Your task to perform on an android device: Open the calendar app, open the side menu, and click the "Day" option Image 0: 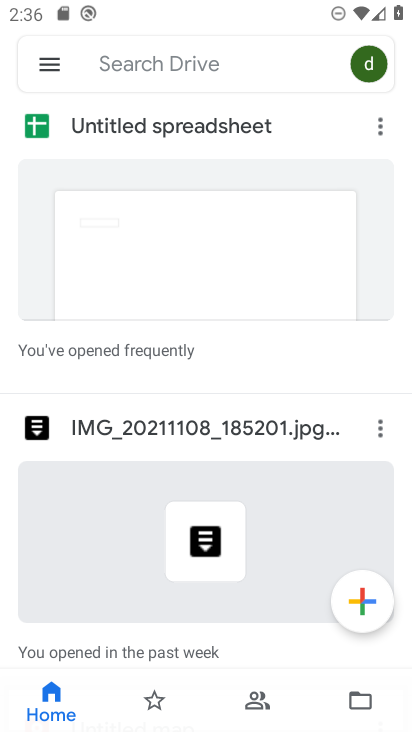
Step 0: press home button
Your task to perform on an android device: Open the calendar app, open the side menu, and click the "Day" option Image 1: 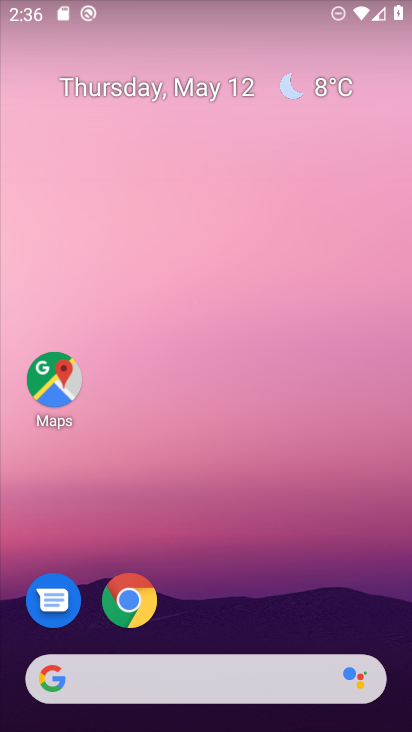
Step 1: drag from (220, 726) to (222, 144)
Your task to perform on an android device: Open the calendar app, open the side menu, and click the "Day" option Image 2: 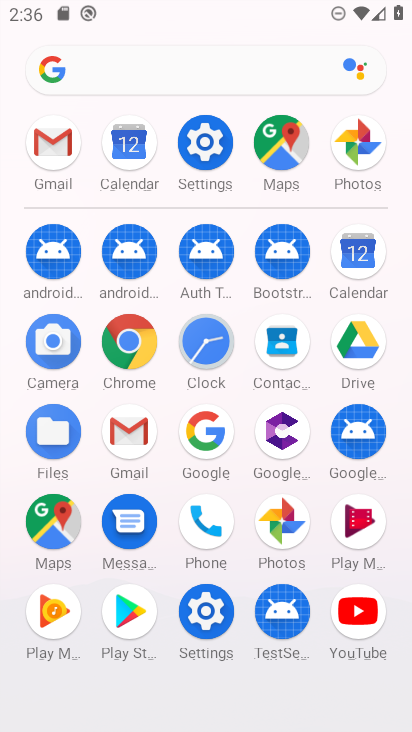
Step 2: click (354, 252)
Your task to perform on an android device: Open the calendar app, open the side menu, and click the "Day" option Image 3: 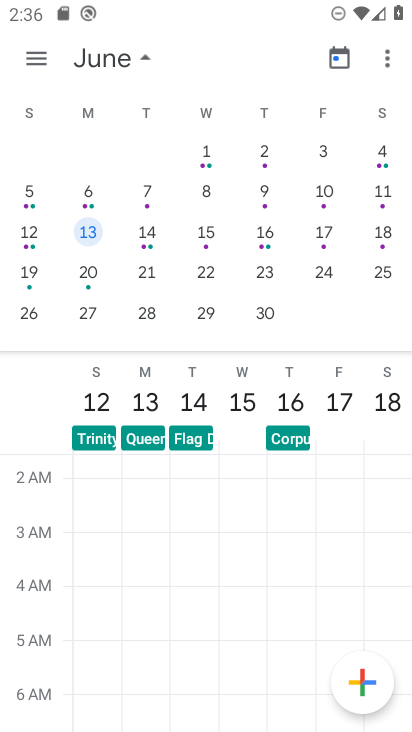
Step 3: click (30, 60)
Your task to perform on an android device: Open the calendar app, open the side menu, and click the "Day" option Image 4: 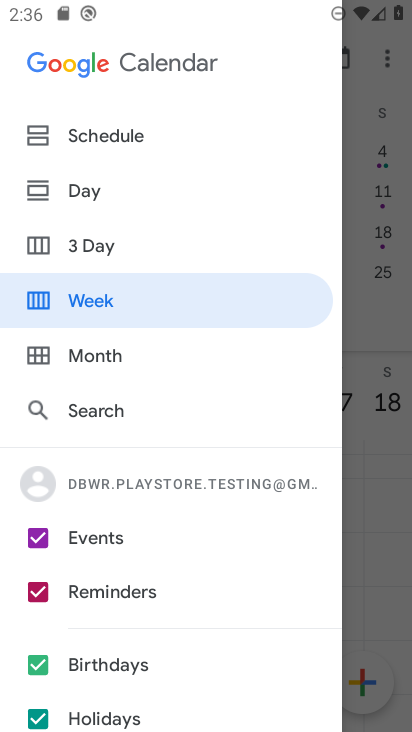
Step 4: click (82, 194)
Your task to perform on an android device: Open the calendar app, open the side menu, and click the "Day" option Image 5: 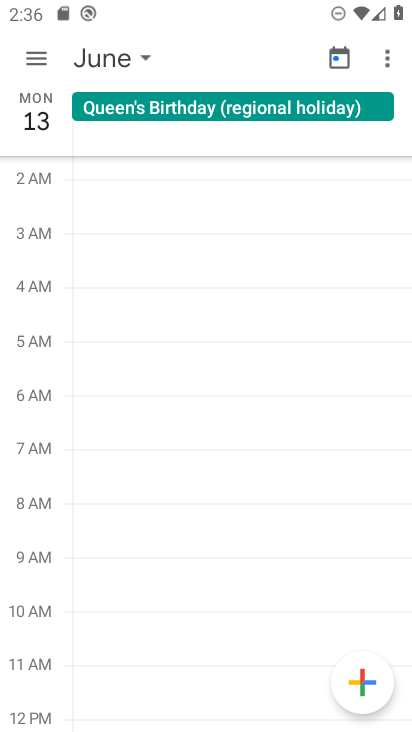
Step 5: task complete